Your task to perform on an android device: add a contact in the contacts app Image 0: 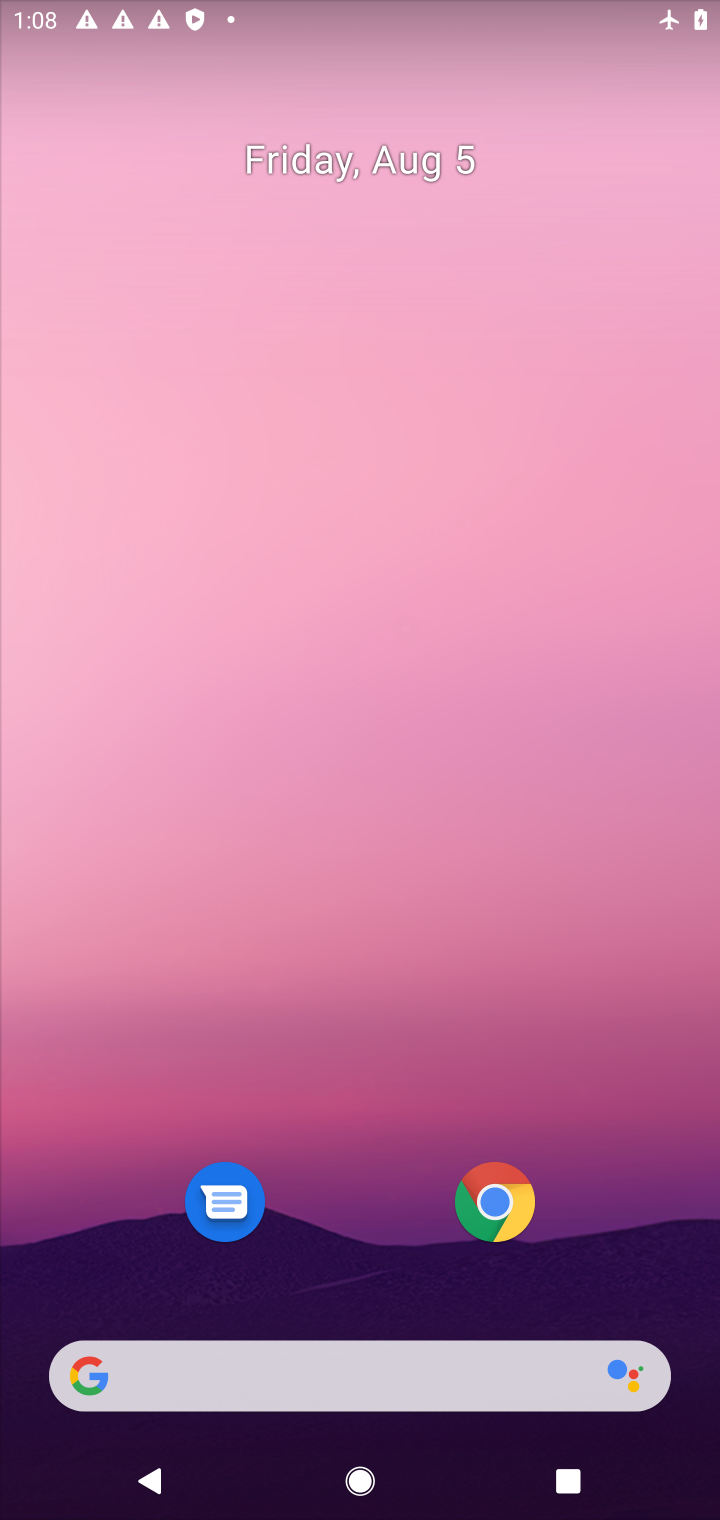
Step 0: press home button
Your task to perform on an android device: add a contact in the contacts app Image 1: 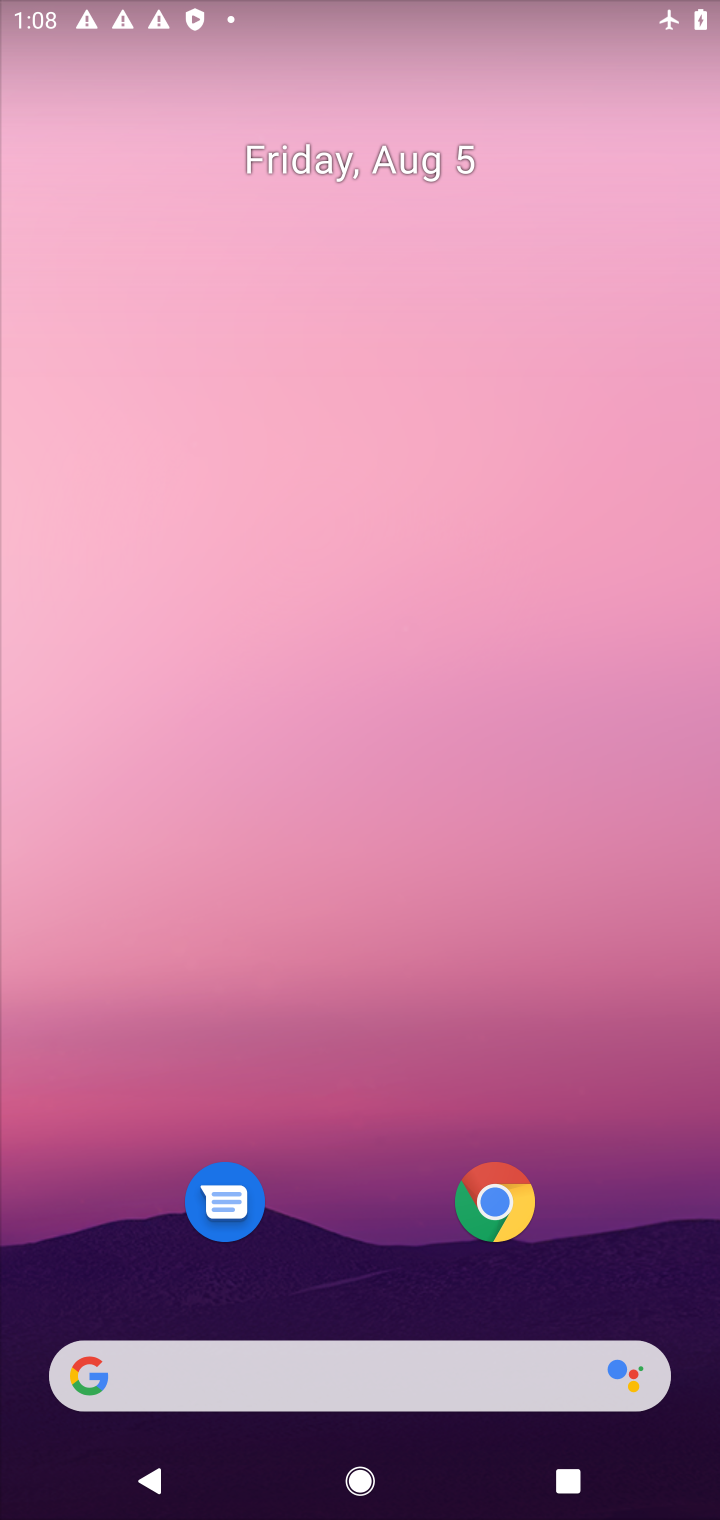
Step 1: press home button
Your task to perform on an android device: add a contact in the contacts app Image 2: 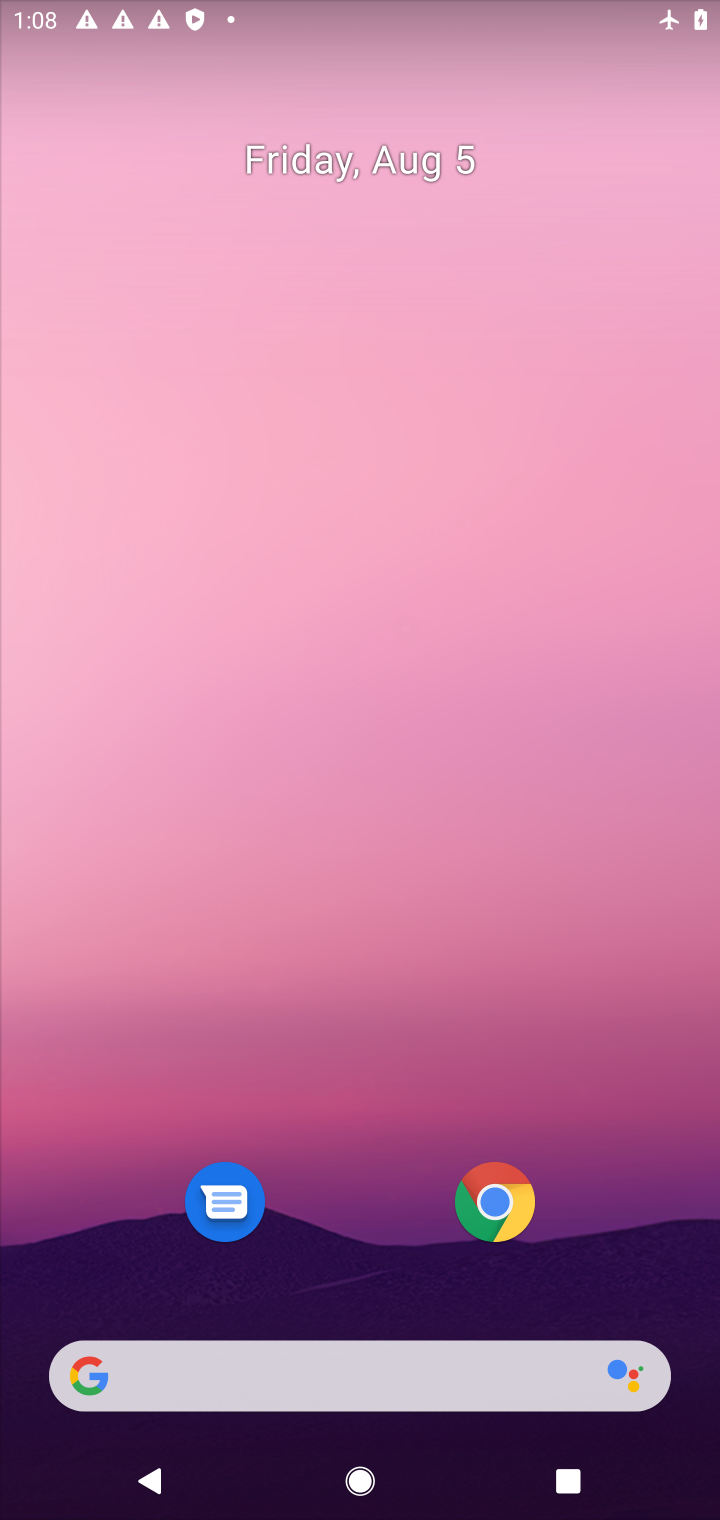
Step 2: drag from (352, 1200) to (468, 75)
Your task to perform on an android device: add a contact in the contacts app Image 3: 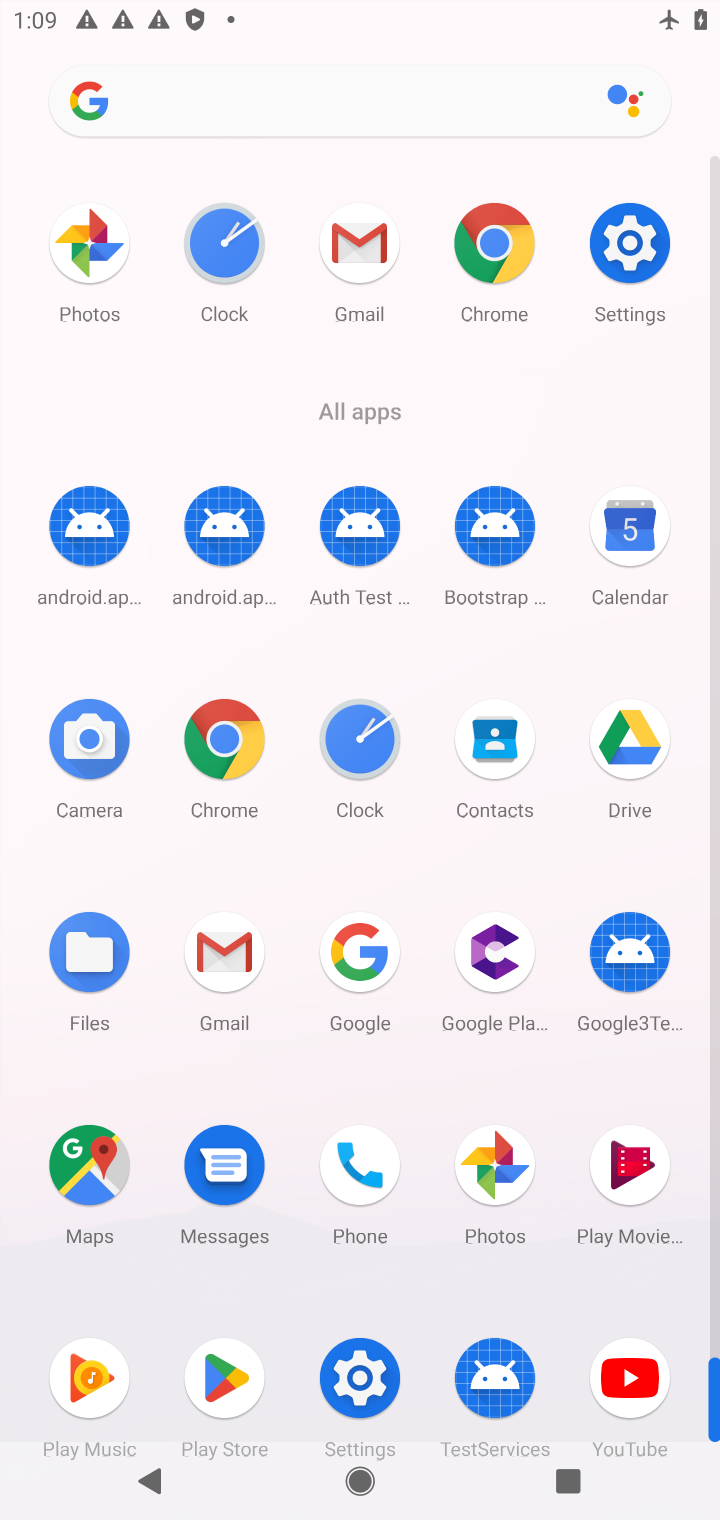
Step 3: click (506, 729)
Your task to perform on an android device: add a contact in the contacts app Image 4: 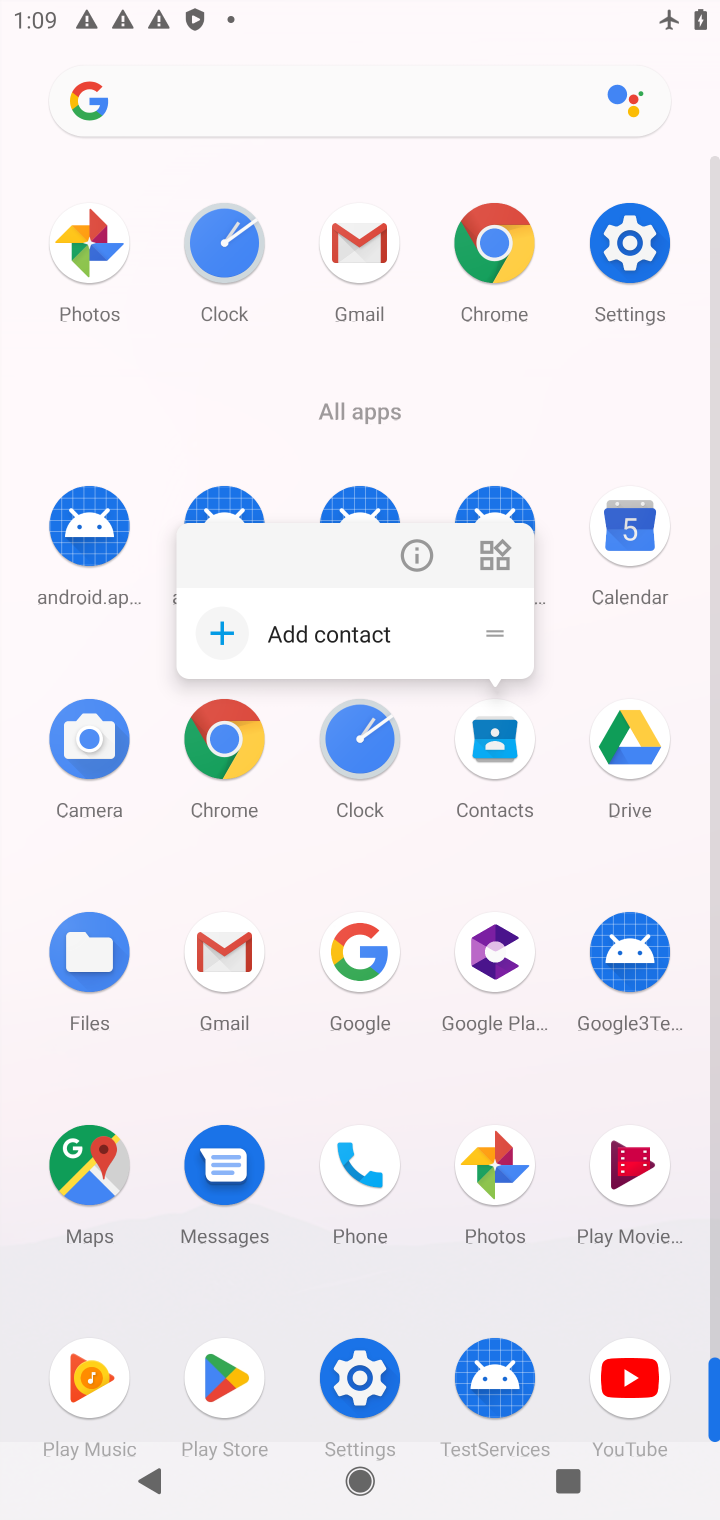
Step 4: click (497, 734)
Your task to perform on an android device: add a contact in the contacts app Image 5: 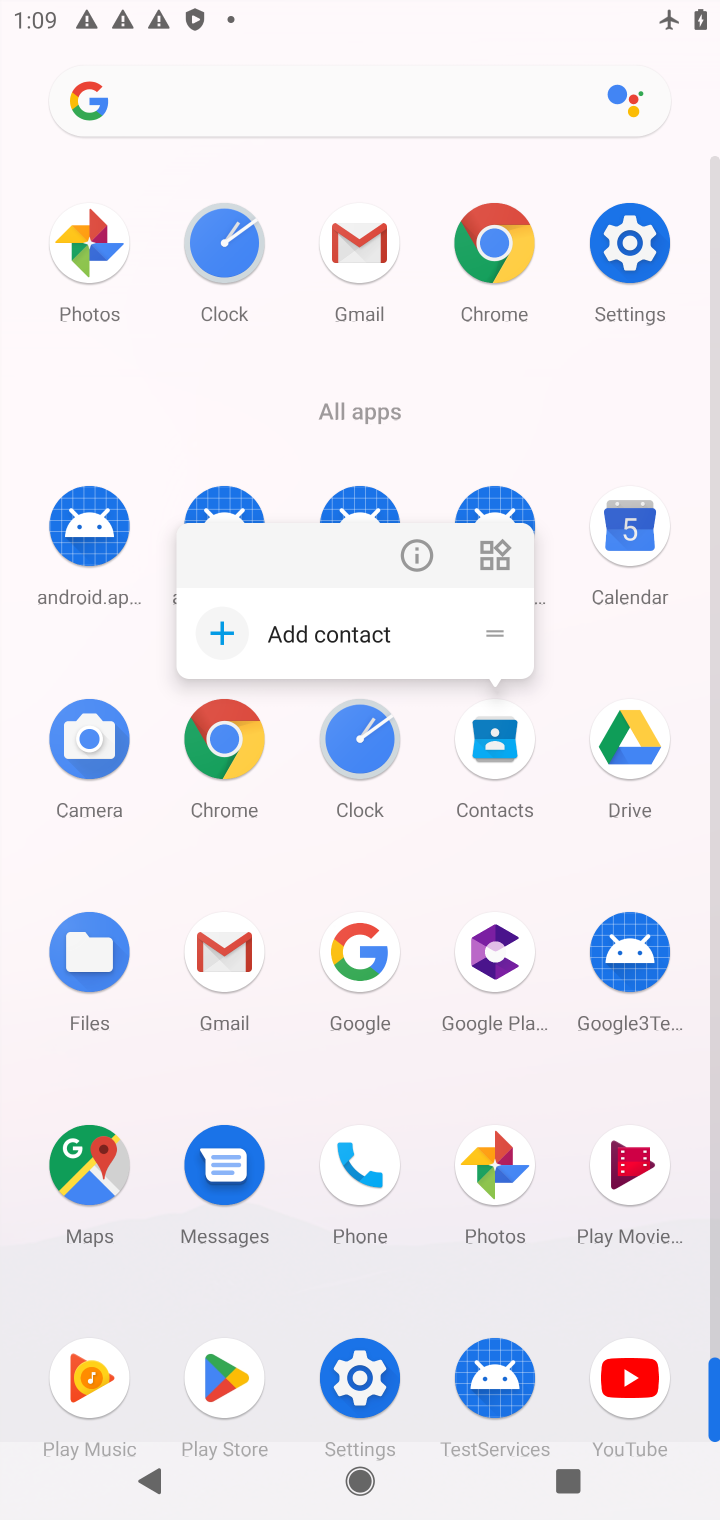
Step 5: click (414, 869)
Your task to perform on an android device: add a contact in the contacts app Image 6: 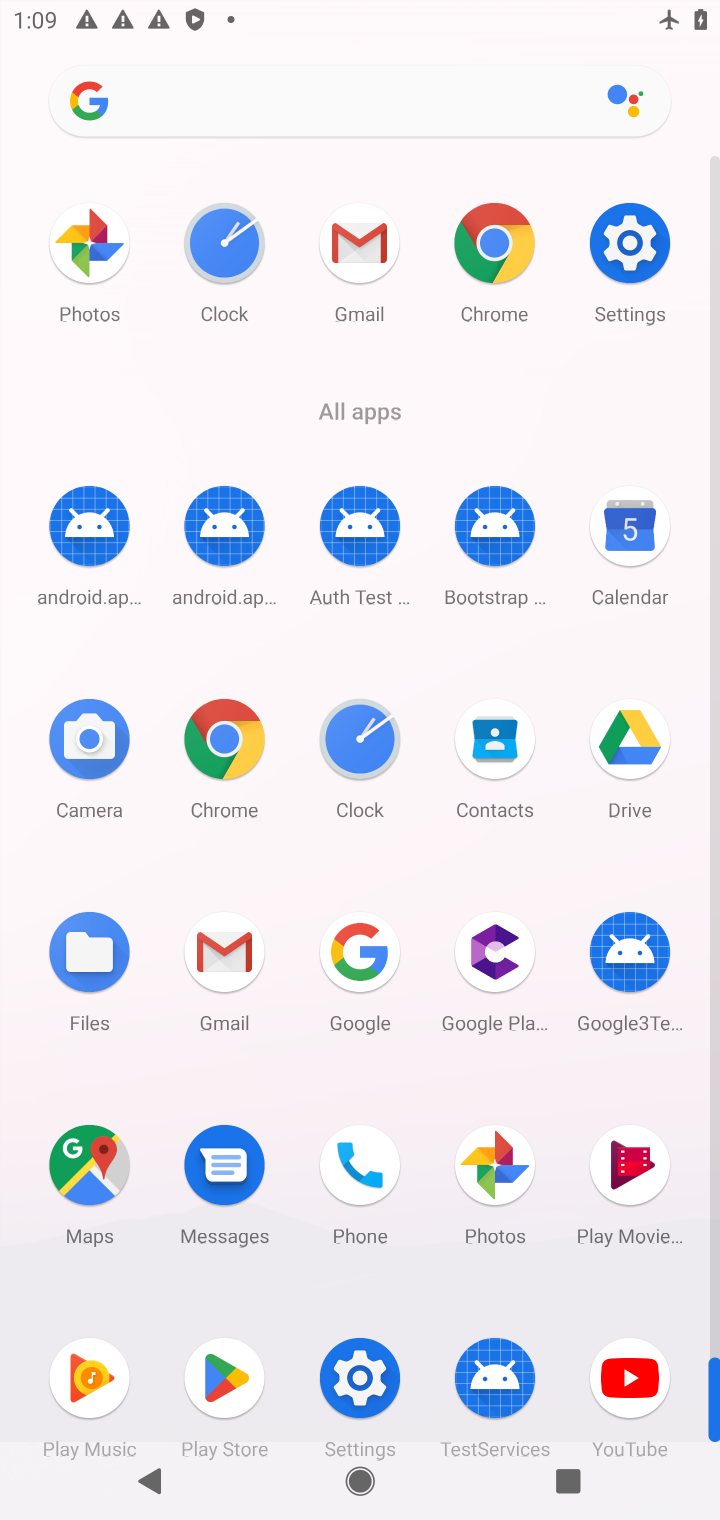
Step 6: click (493, 746)
Your task to perform on an android device: add a contact in the contacts app Image 7: 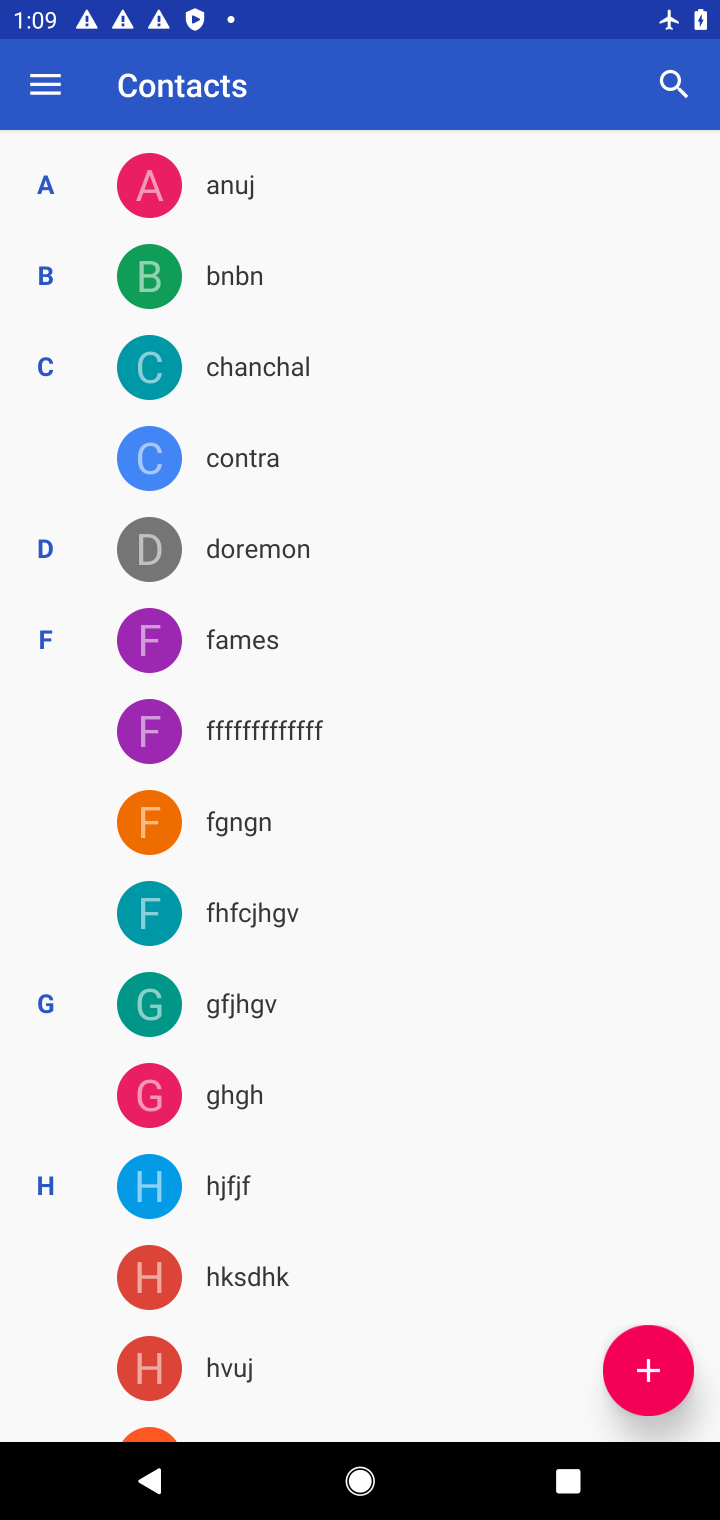
Step 7: click (650, 1354)
Your task to perform on an android device: add a contact in the contacts app Image 8: 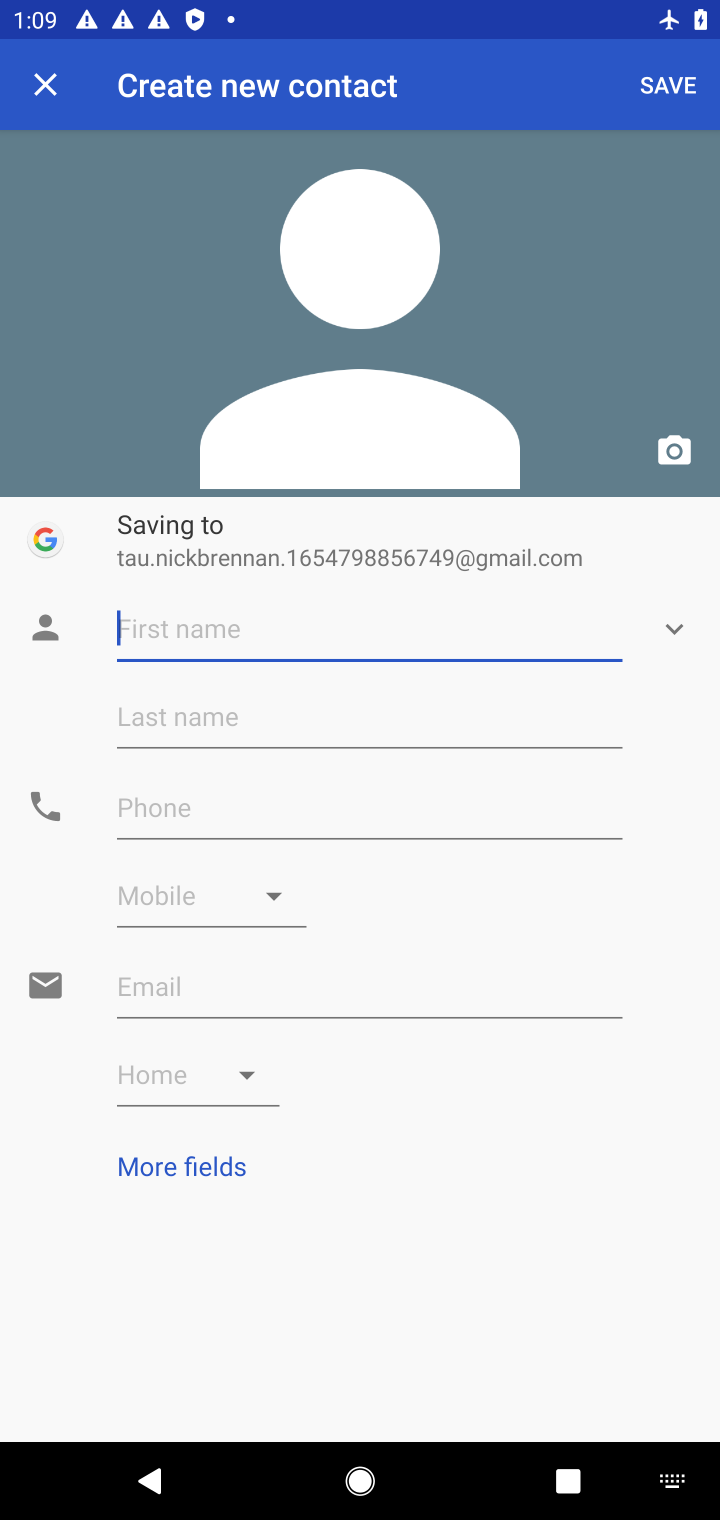
Step 8: click (345, 639)
Your task to perform on an android device: add a contact in the contacts app Image 9: 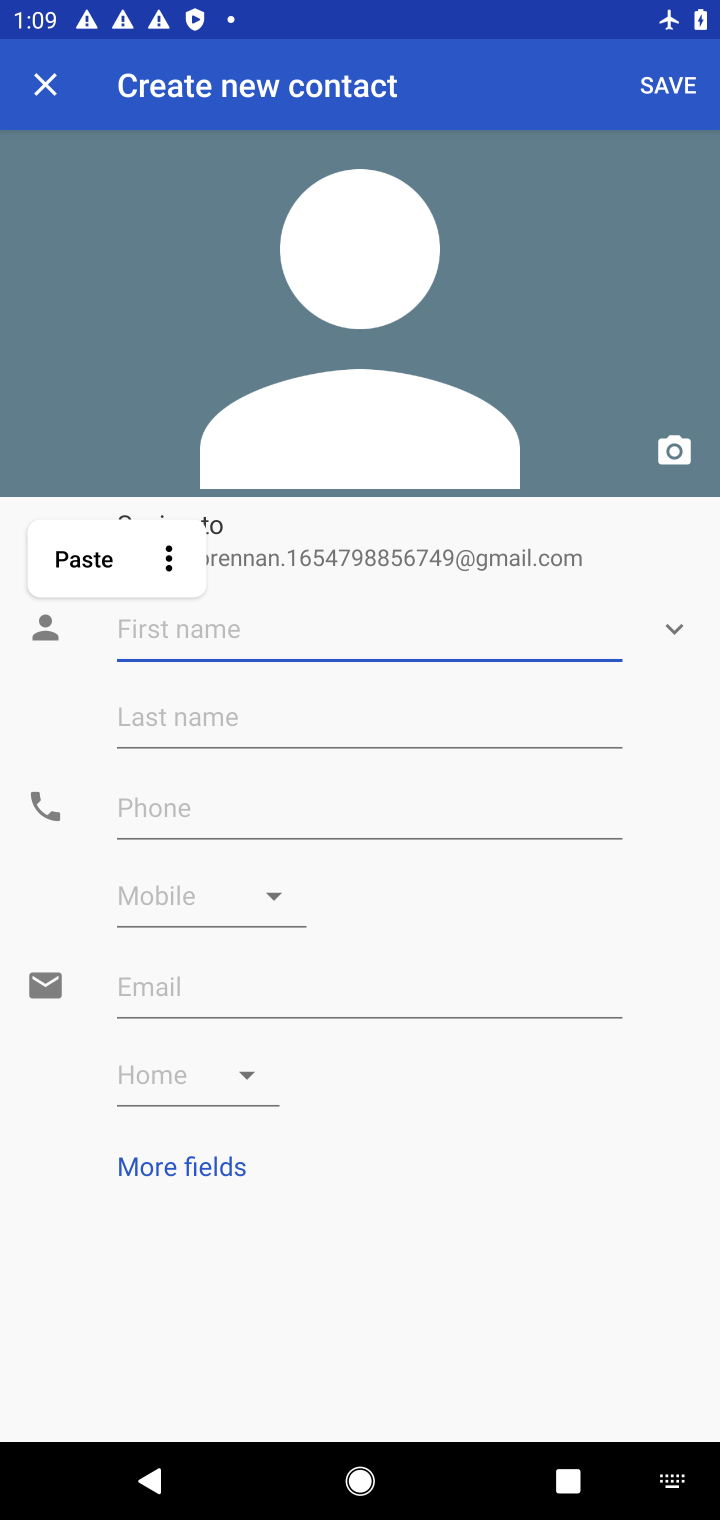
Step 9: type "karma"
Your task to perform on an android device: add a contact in the contacts app Image 10: 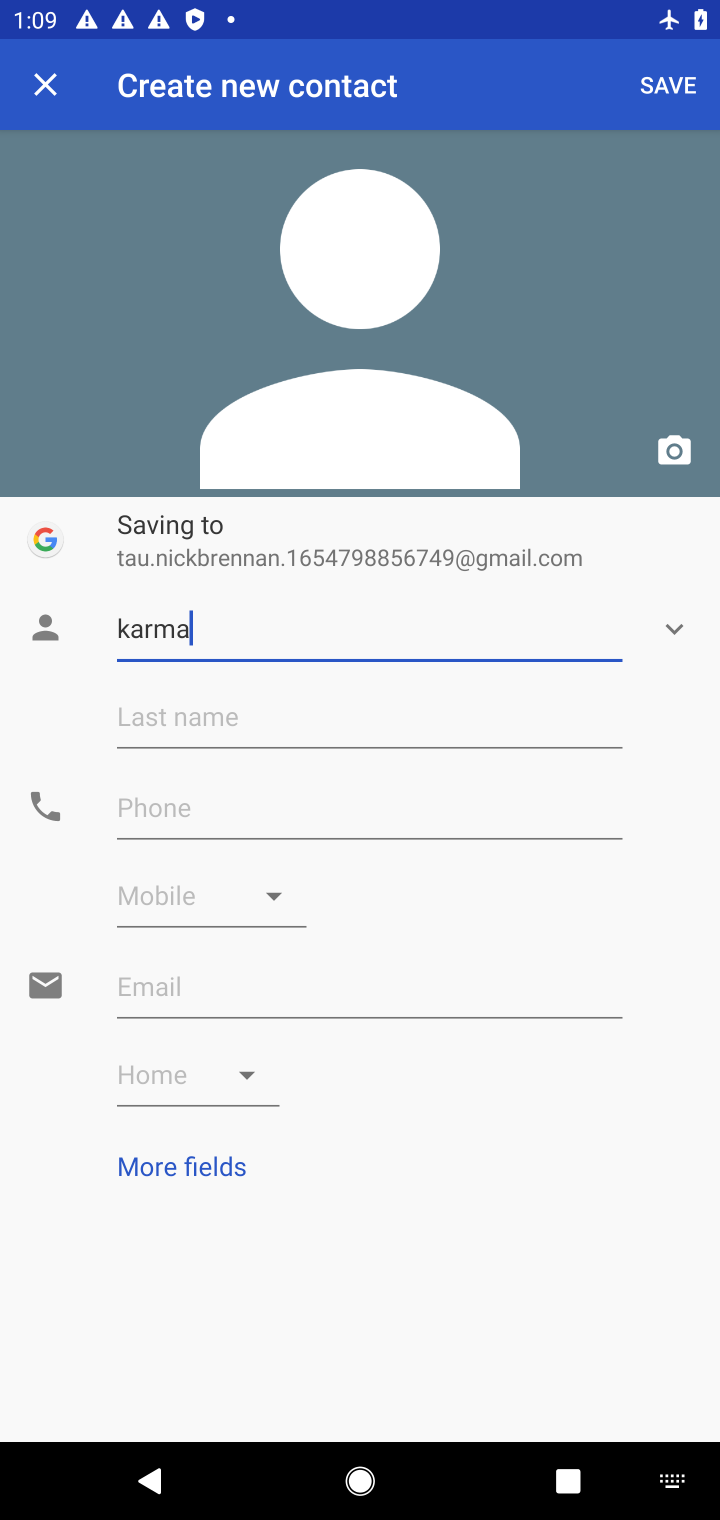
Step 10: click (682, 95)
Your task to perform on an android device: add a contact in the contacts app Image 11: 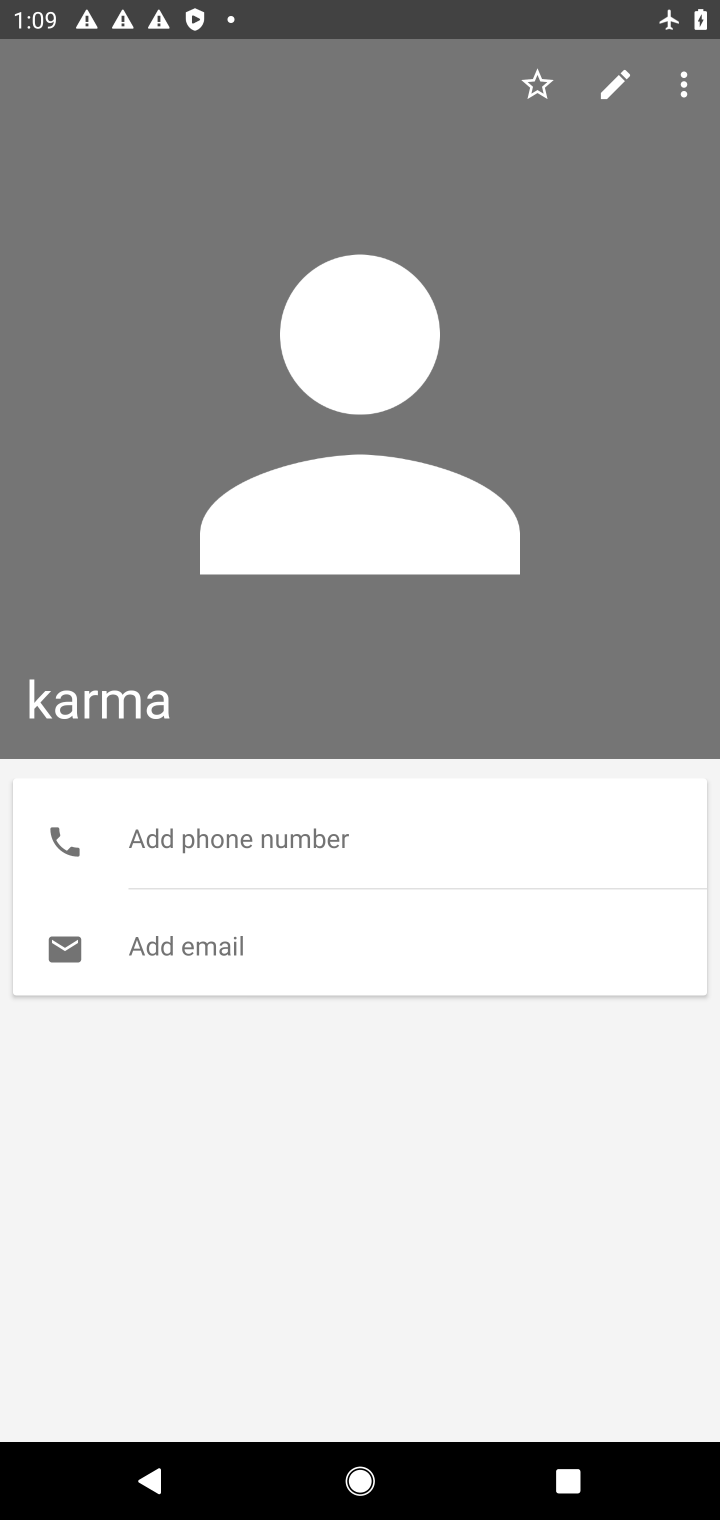
Step 11: task complete